Your task to perform on an android device: Set the phone to "Do not disturb". Image 0: 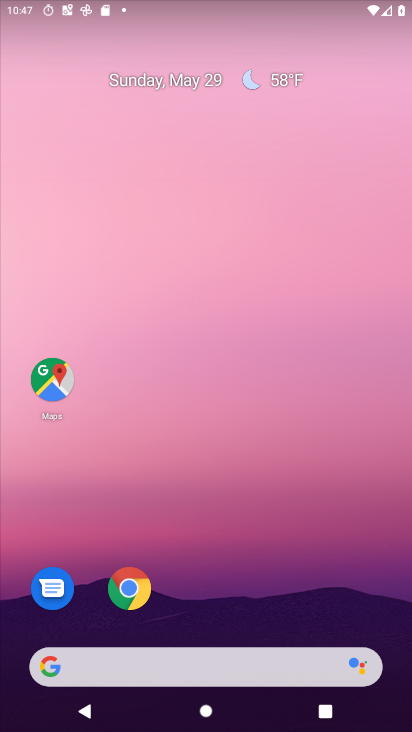
Step 0: drag from (355, 585) to (170, 0)
Your task to perform on an android device: Set the phone to "Do not disturb". Image 1: 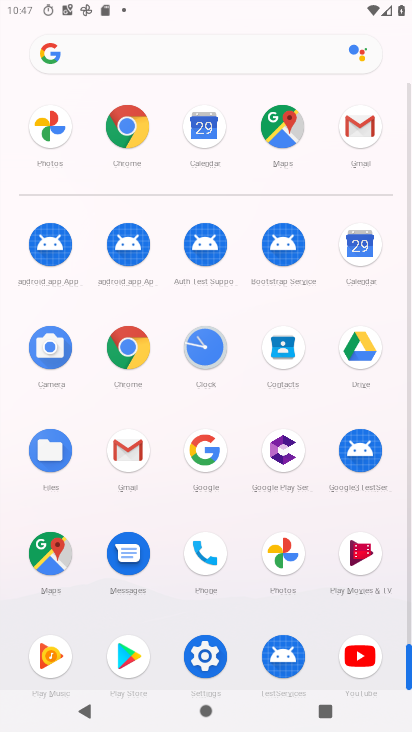
Step 1: click (204, 665)
Your task to perform on an android device: Set the phone to "Do not disturb". Image 2: 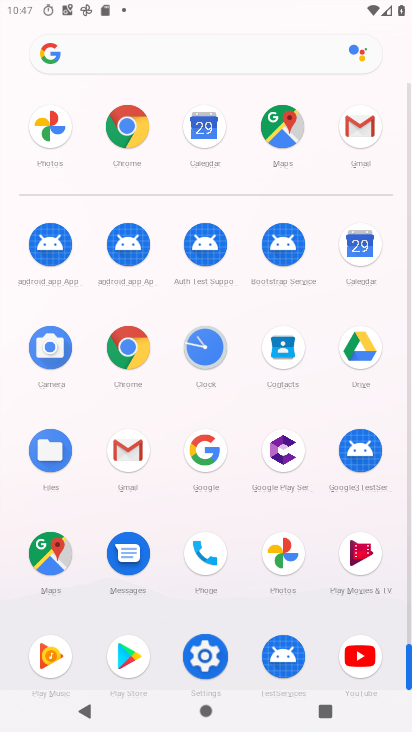
Step 2: click (204, 664)
Your task to perform on an android device: Set the phone to "Do not disturb". Image 3: 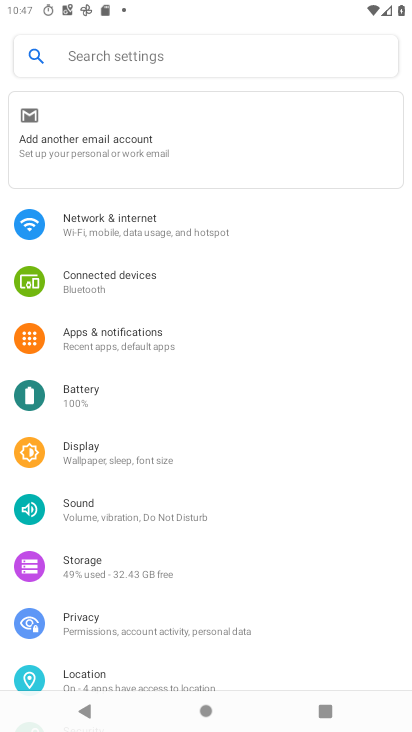
Step 3: click (112, 512)
Your task to perform on an android device: Set the phone to "Do not disturb". Image 4: 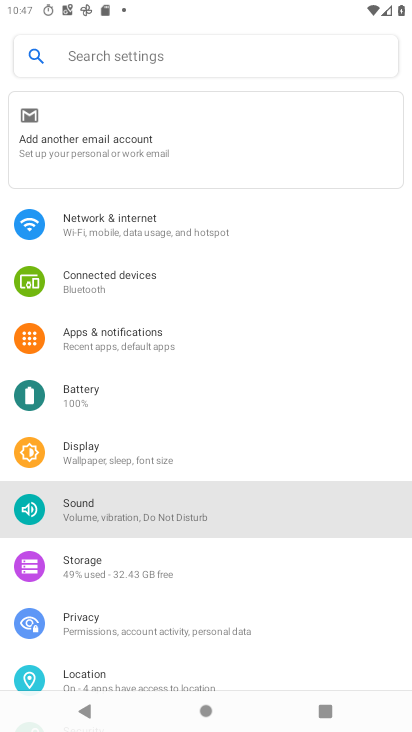
Step 4: click (112, 512)
Your task to perform on an android device: Set the phone to "Do not disturb". Image 5: 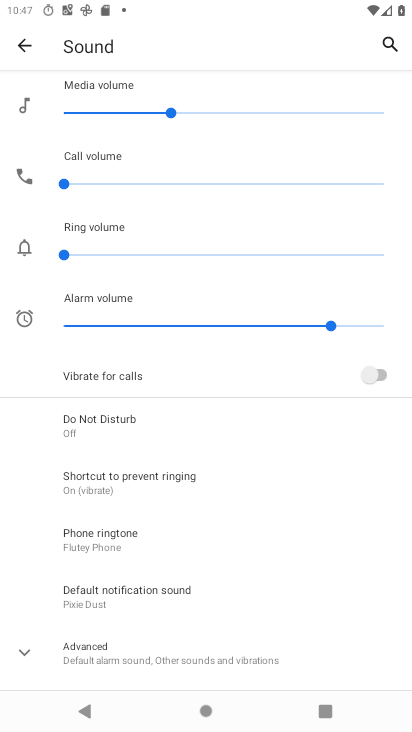
Step 5: click (100, 415)
Your task to perform on an android device: Set the phone to "Do not disturb". Image 6: 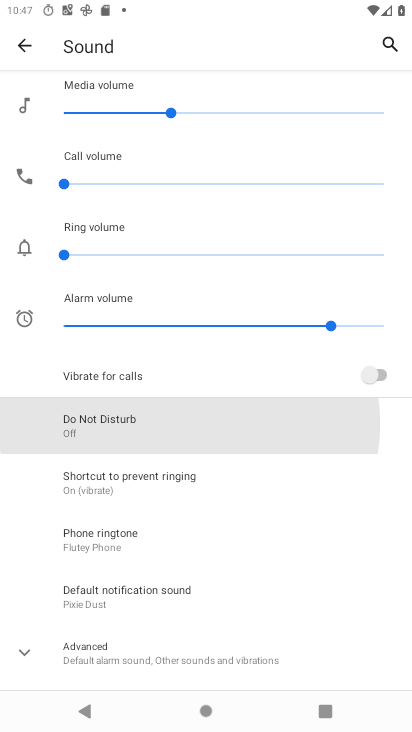
Step 6: click (100, 415)
Your task to perform on an android device: Set the phone to "Do not disturb". Image 7: 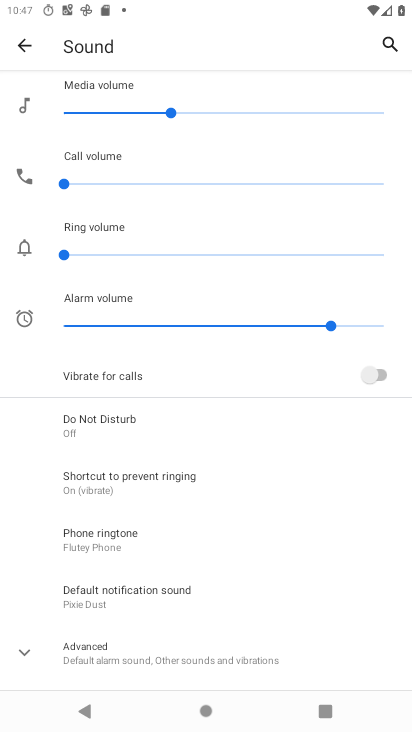
Step 7: click (100, 415)
Your task to perform on an android device: Set the phone to "Do not disturb". Image 8: 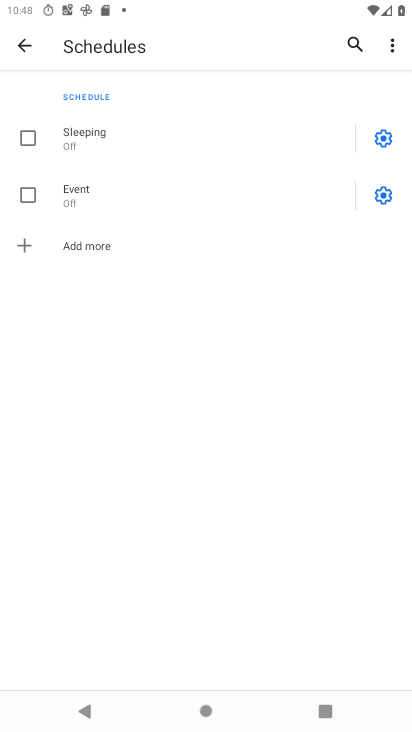
Step 8: task complete